Your task to perform on an android device: set default search engine in the chrome app Image 0: 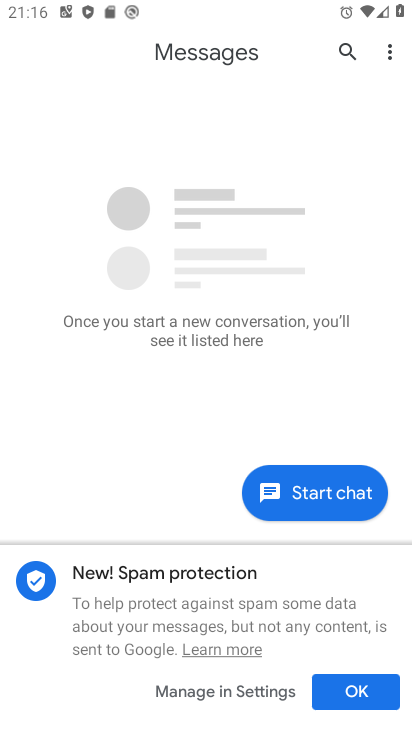
Step 0: press home button
Your task to perform on an android device: set default search engine in the chrome app Image 1: 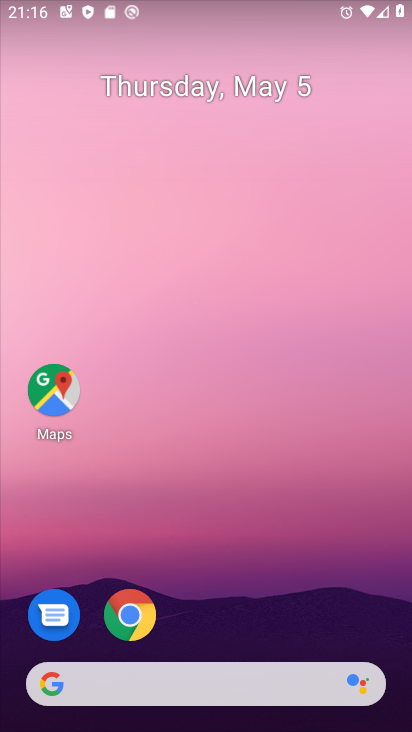
Step 1: click (141, 612)
Your task to perform on an android device: set default search engine in the chrome app Image 2: 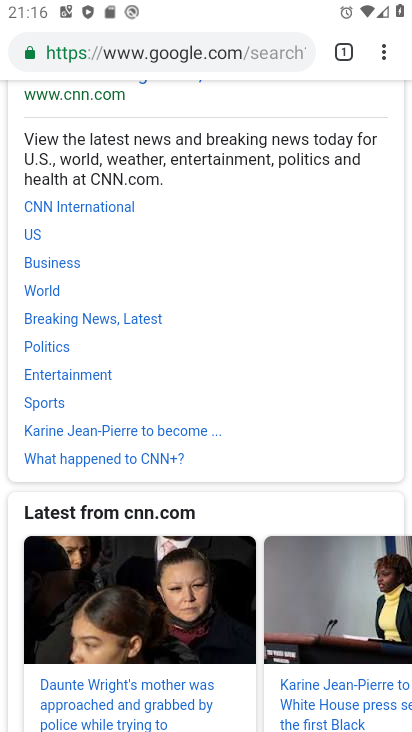
Step 2: click (386, 61)
Your task to perform on an android device: set default search engine in the chrome app Image 3: 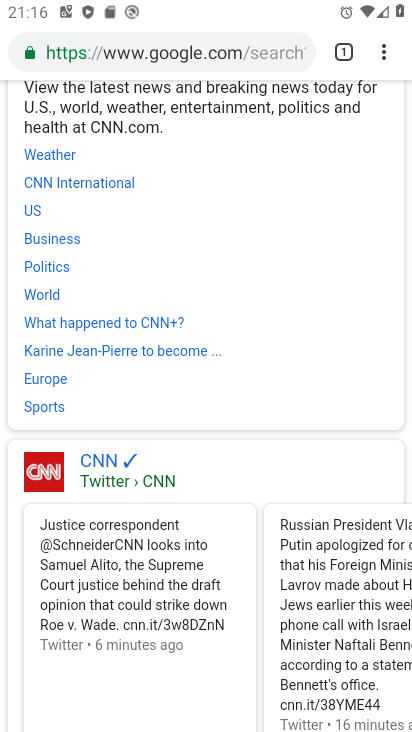
Step 3: click (389, 53)
Your task to perform on an android device: set default search engine in the chrome app Image 4: 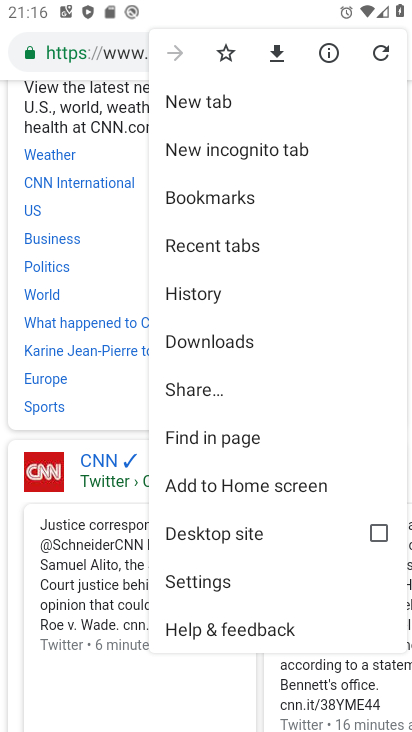
Step 4: click (208, 585)
Your task to perform on an android device: set default search engine in the chrome app Image 5: 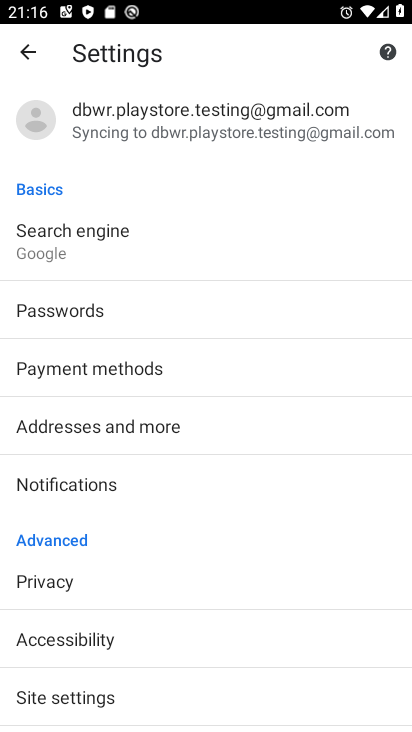
Step 5: click (41, 241)
Your task to perform on an android device: set default search engine in the chrome app Image 6: 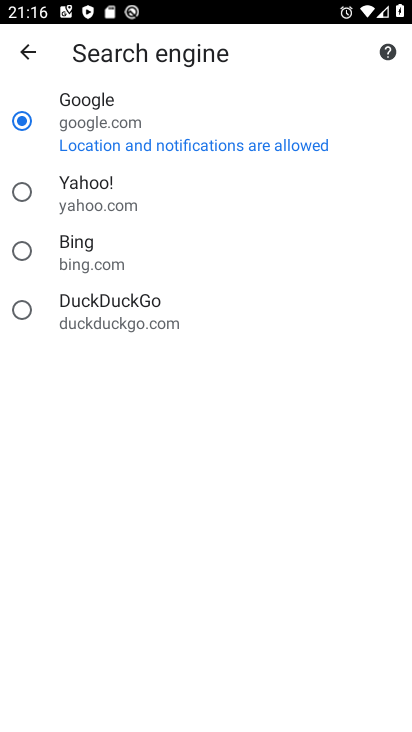
Step 6: task complete